Your task to perform on an android device: Play the last video I watched on Youtube Image 0: 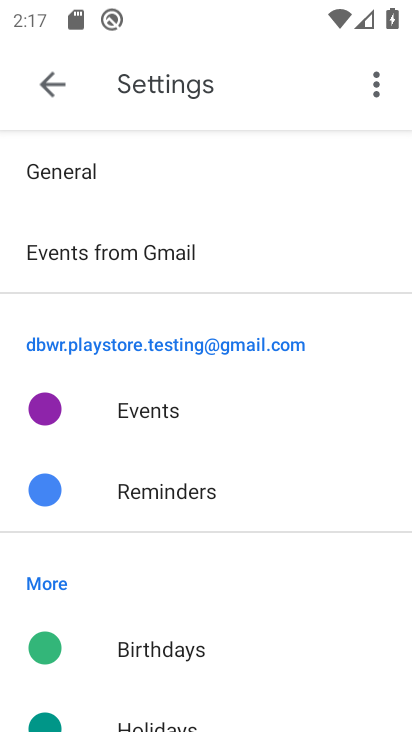
Step 0: press home button
Your task to perform on an android device: Play the last video I watched on Youtube Image 1: 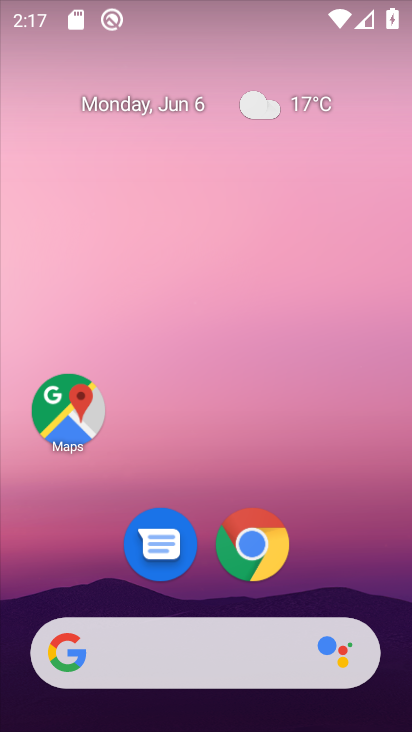
Step 1: drag from (387, 701) to (282, 43)
Your task to perform on an android device: Play the last video I watched on Youtube Image 2: 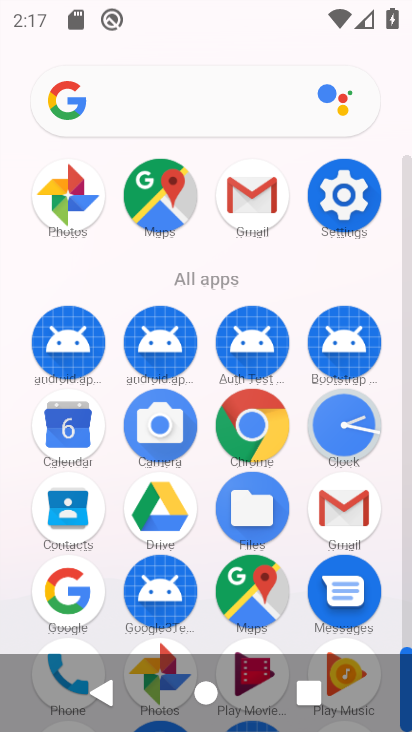
Step 2: drag from (291, 619) to (265, 208)
Your task to perform on an android device: Play the last video I watched on Youtube Image 3: 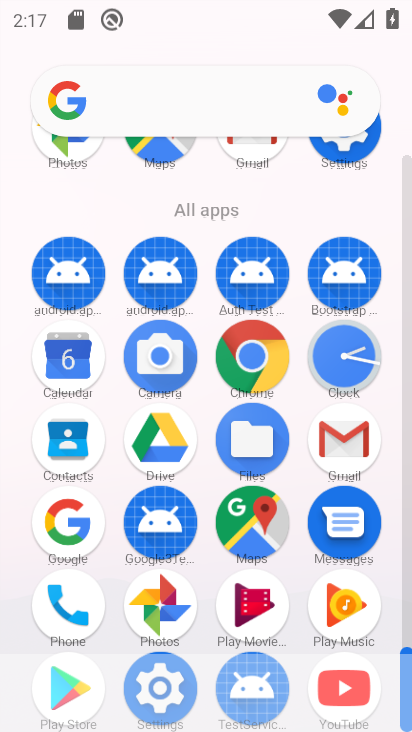
Step 3: drag from (294, 629) to (282, 246)
Your task to perform on an android device: Play the last video I watched on Youtube Image 4: 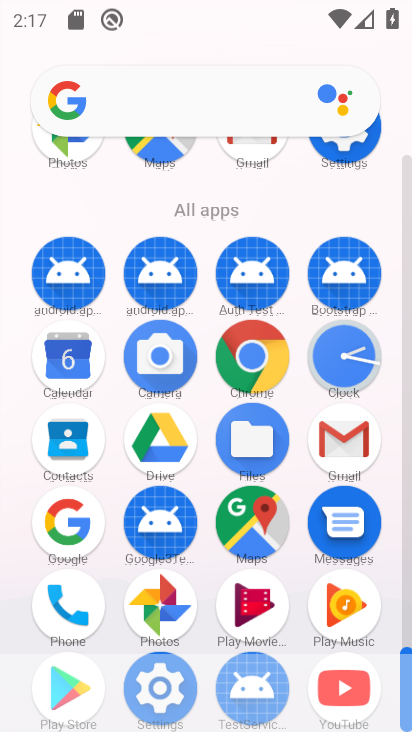
Step 4: drag from (292, 628) to (290, 270)
Your task to perform on an android device: Play the last video I watched on Youtube Image 5: 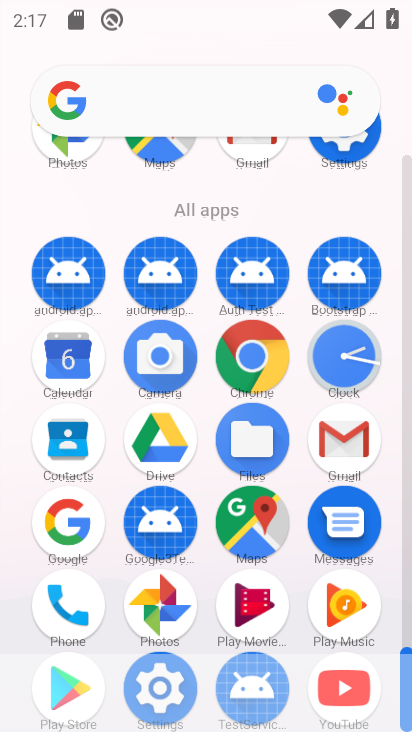
Step 5: drag from (289, 589) to (282, 351)
Your task to perform on an android device: Play the last video I watched on Youtube Image 6: 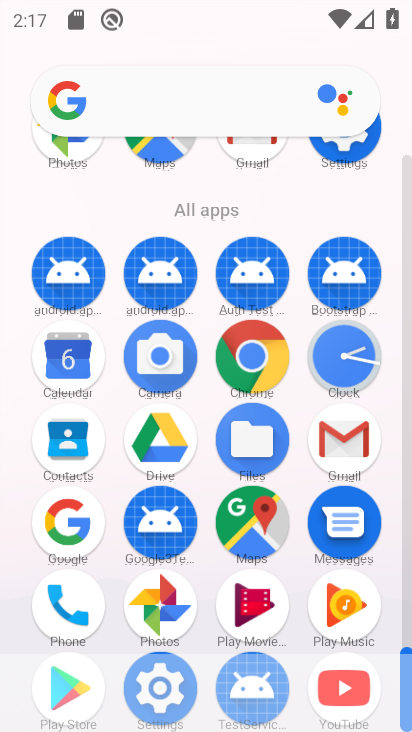
Step 6: drag from (290, 613) to (291, 346)
Your task to perform on an android device: Play the last video I watched on Youtube Image 7: 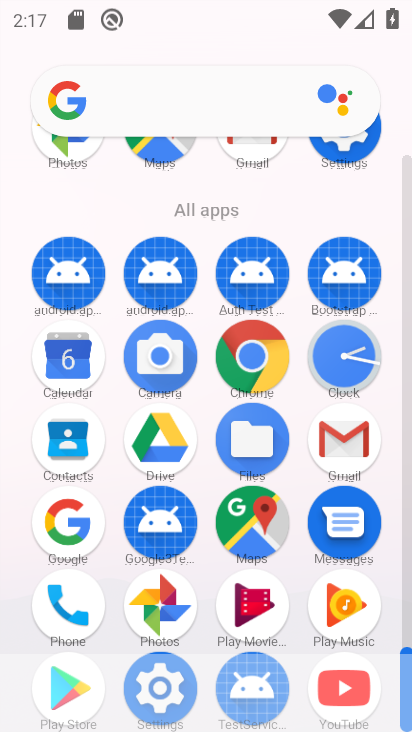
Step 7: click (335, 692)
Your task to perform on an android device: Play the last video I watched on Youtube Image 8: 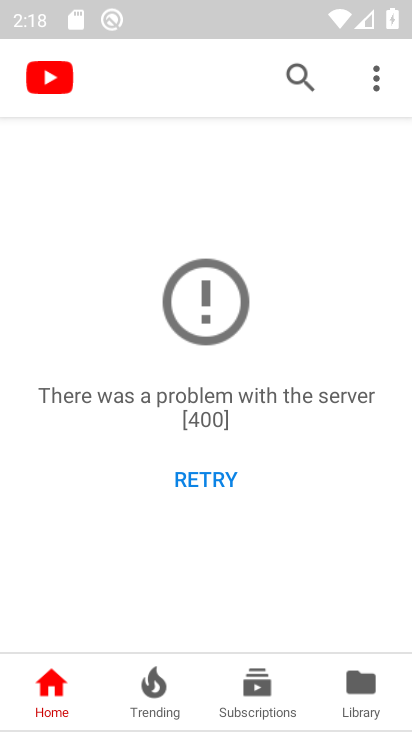
Step 8: task complete